Your task to perform on an android device: install app "PUBG MOBILE" Image 0: 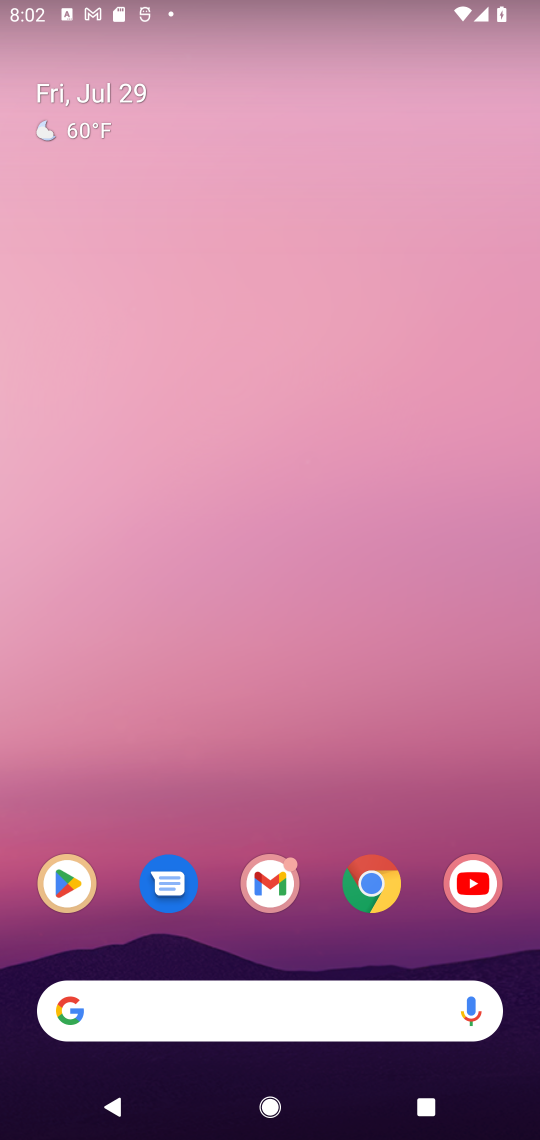
Step 0: click (65, 883)
Your task to perform on an android device: install app "PUBG MOBILE" Image 1: 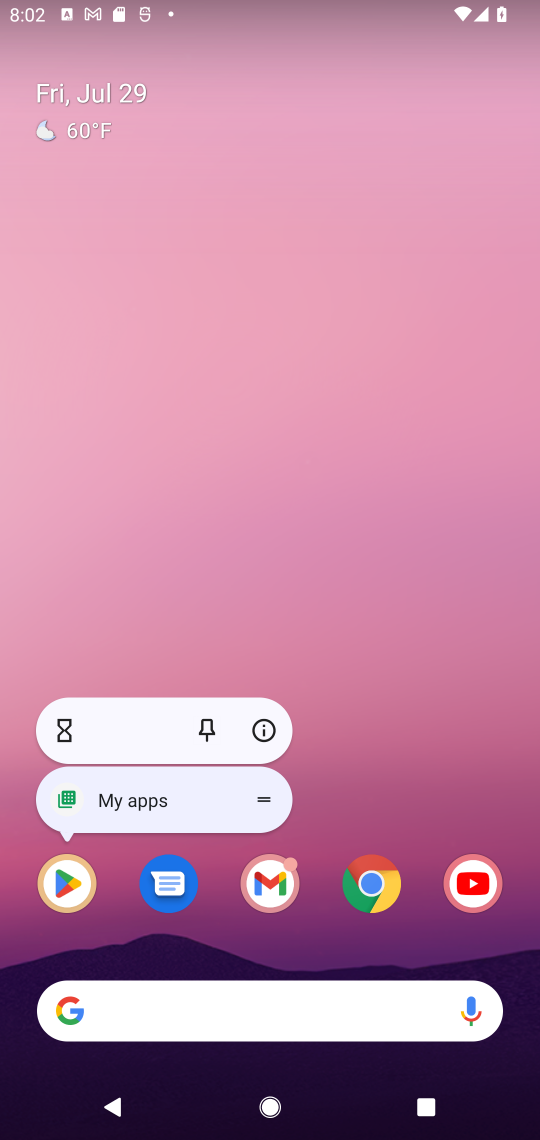
Step 1: click (68, 877)
Your task to perform on an android device: install app "PUBG MOBILE" Image 2: 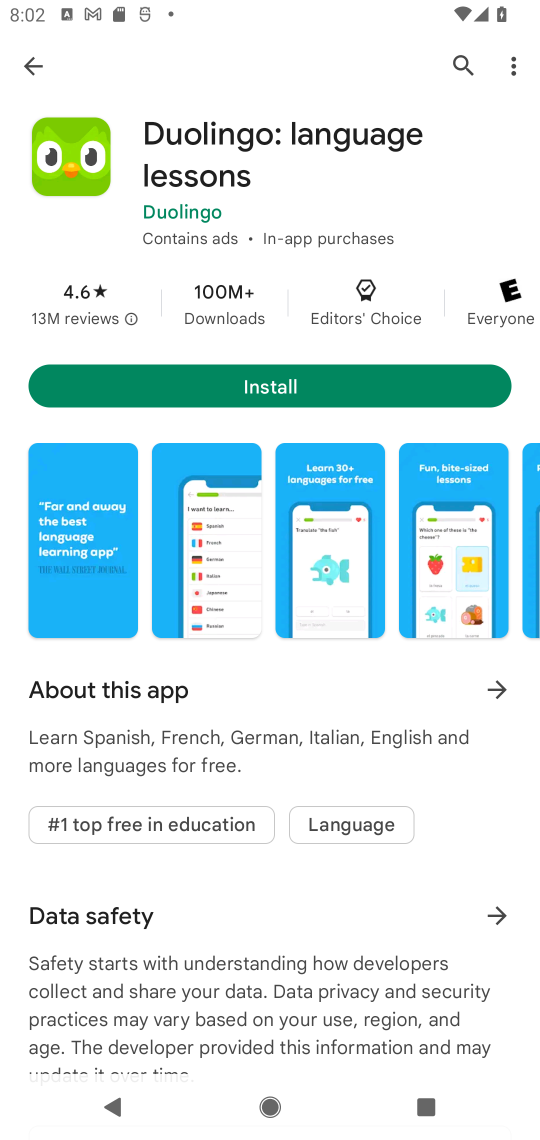
Step 2: click (447, 72)
Your task to perform on an android device: install app "PUBG MOBILE" Image 3: 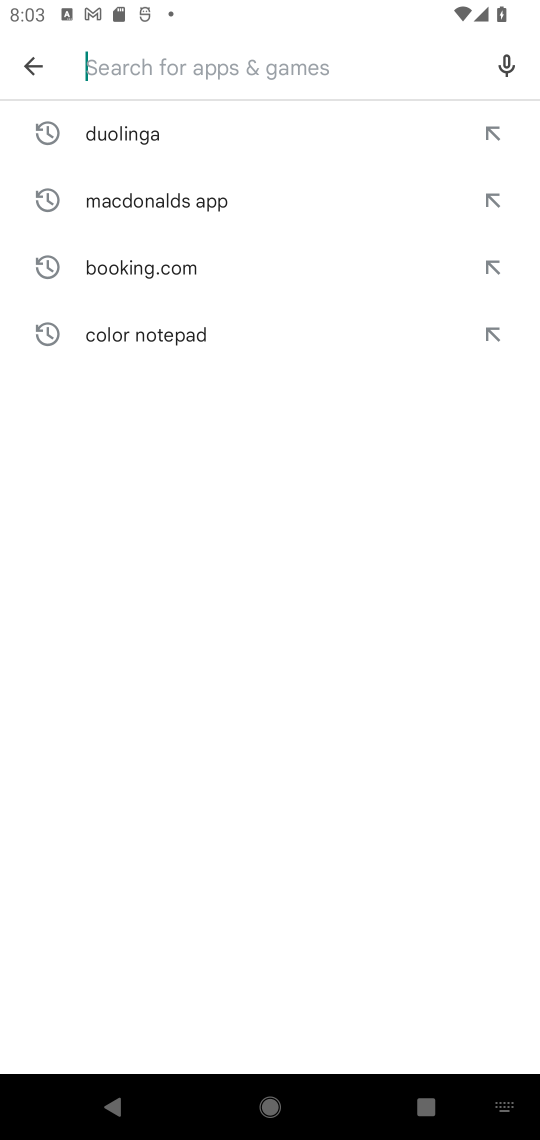
Step 3: click (216, 56)
Your task to perform on an android device: install app "PUBG MOBILE" Image 4: 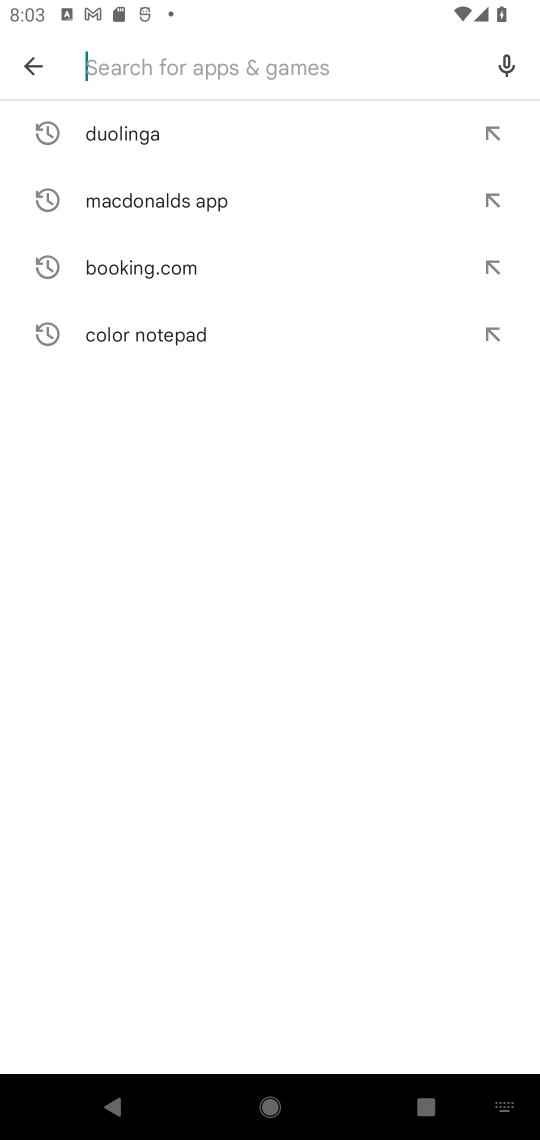
Step 4: type "pubgmobile"
Your task to perform on an android device: install app "PUBG MOBILE" Image 5: 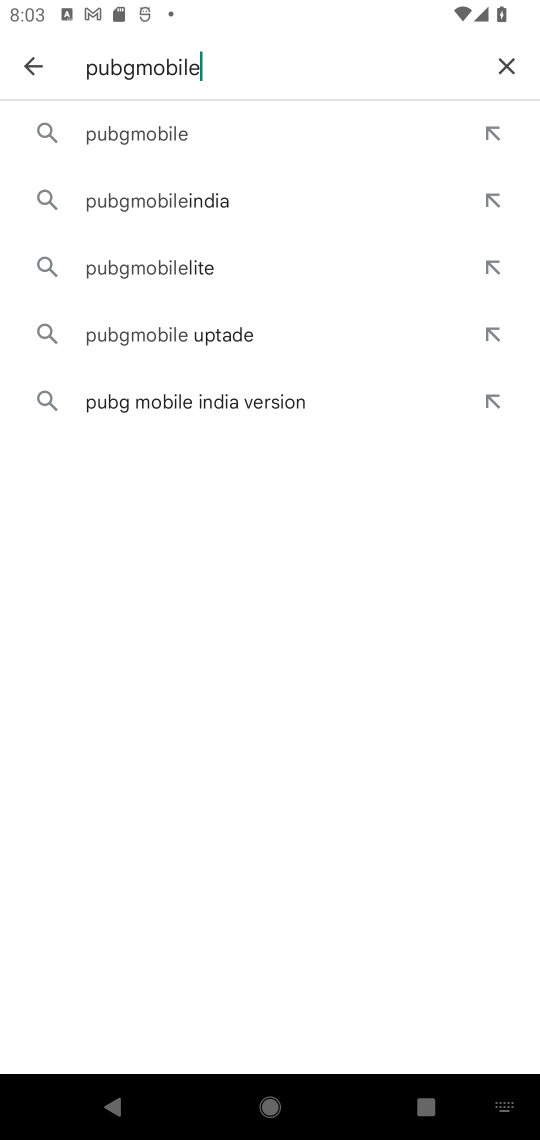
Step 5: click (142, 131)
Your task to perform on an android device: install app "PUBG MOBILE" Image 6: 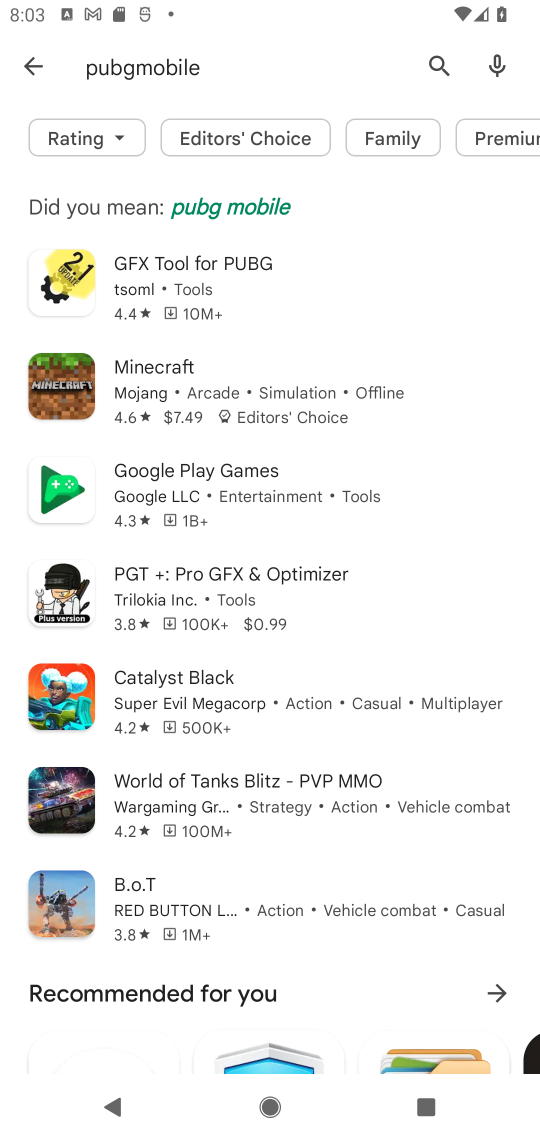
Step 6: task complete